Your task to perform on an android device: turn off smart reply in the gmail app Image 0: 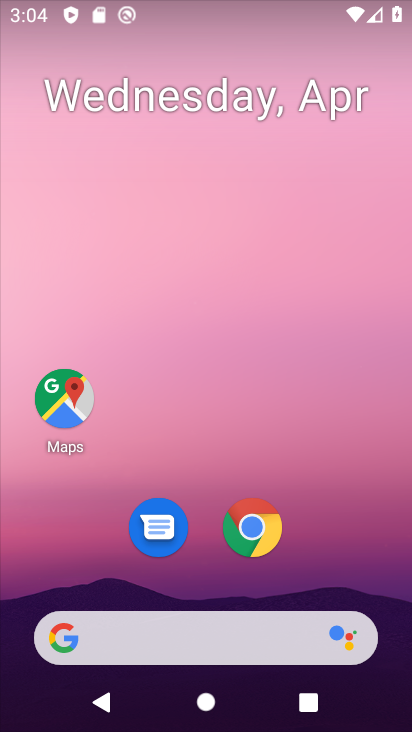
Step 0: drag from (192, 473) to (196, 8)
Your task to perform on an android device: turn off smart reply in the gmail app Image 1: 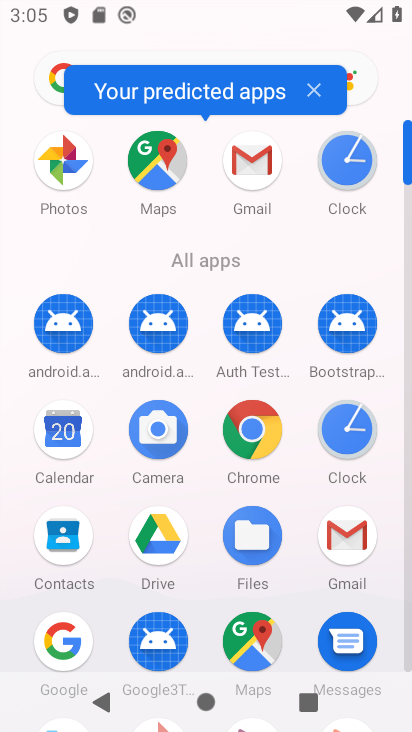
Step 1: click (266, 170)
Your task to perform on an android device: turn off smart reply in the gmail app Image 2: 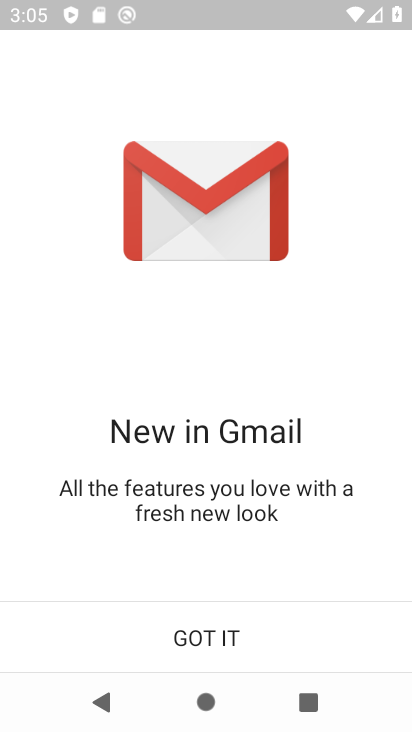
Step 2: click (207, 652)
Your task to perform on an android device: turn off smart reply in the gmail app Image 3: 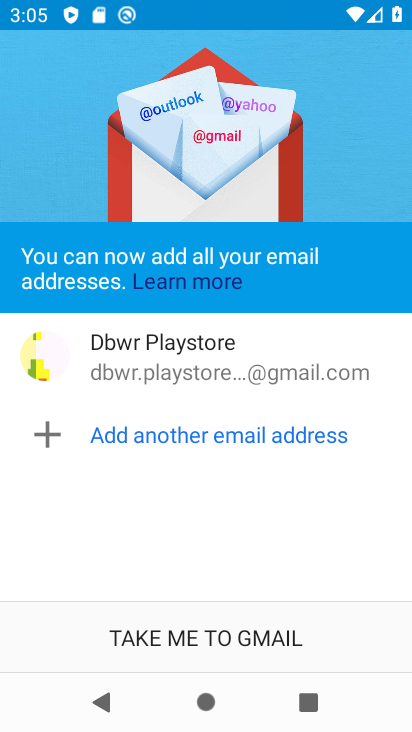
Step 3: click (207, 652)
Your task to perform on an android device: turn off smart reply in the gmail app Image 4: 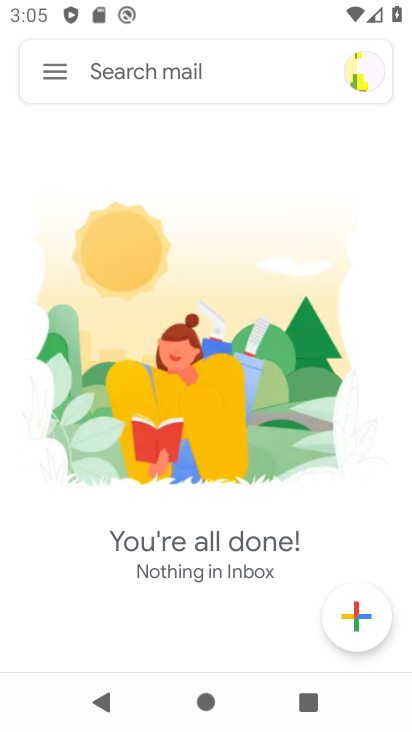
Step 4: click (54, 63)
Your task to perform on an android device: turn off smart reply in the gmail app Image 5: 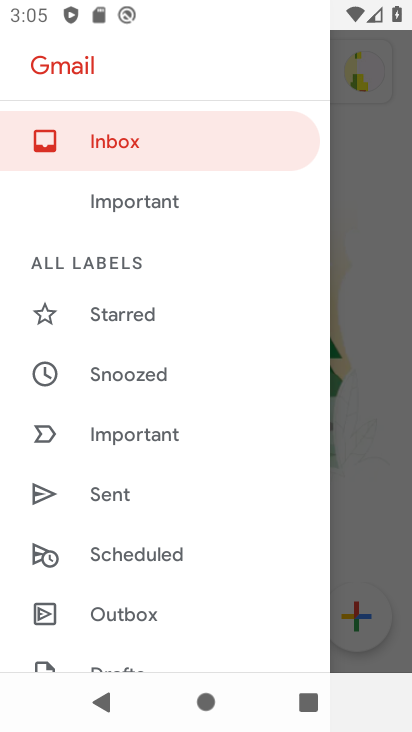
Step 5: drag from (170, 562) to (229, 101)
Your task to perform on an android device: turn off smart reply in the gmail app Image 6: 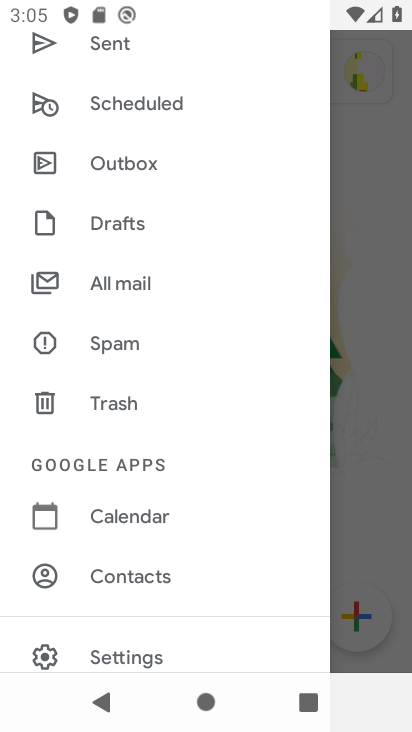
Step 6: click (147, 661)
Your task to perform on an android device: turn off smart reply in the gmail app Image 7: 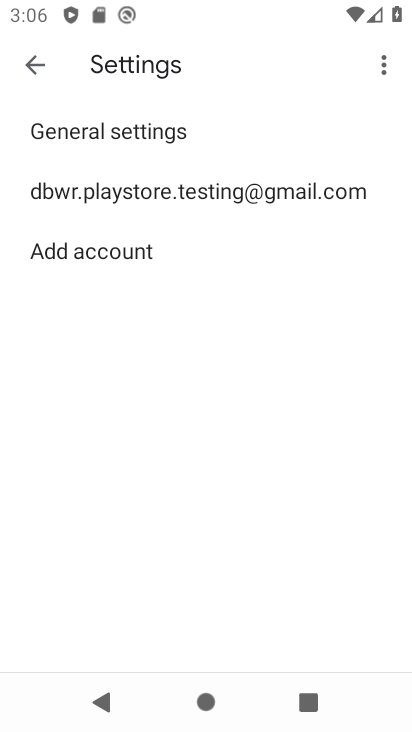
Step 7: click (265, 192)
Your task to perform on an android device: turn off smart reply in the gmail app Image 8: 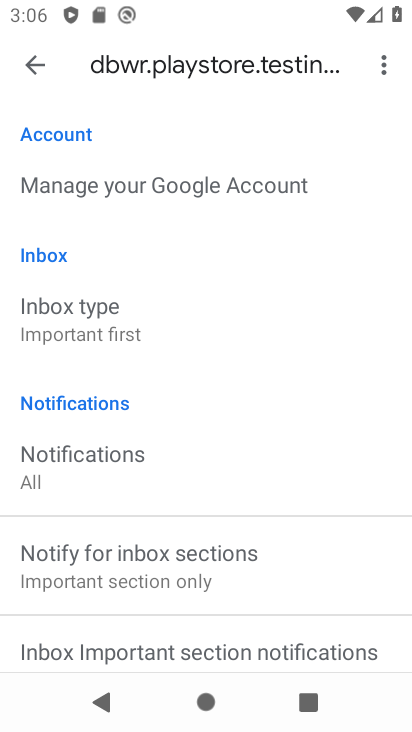
Step 8: drag from (159, 439) to (205, 76)
Your task to perform on an android device: turn off smart reply in the gmail app Image 9: 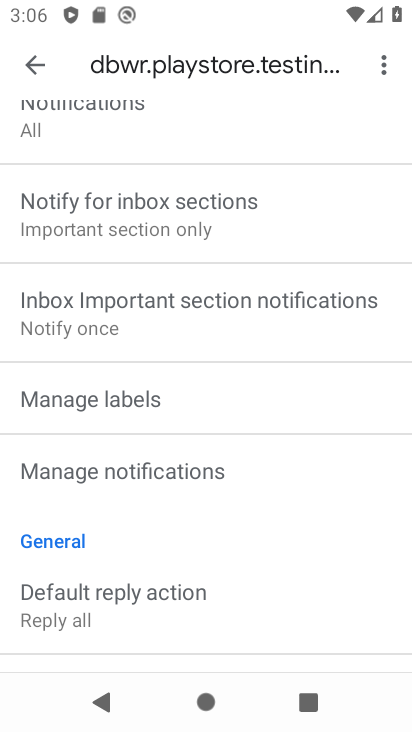
Step 9: drag from (150, 568) to (193, 259)
Your task to perform on an android device: turn off smart reply in the gmail app Image 10: 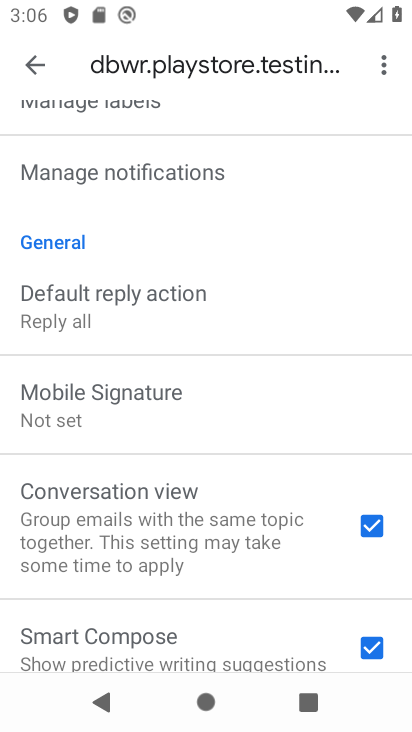
Step 10: drag from (195, 575) to (214, 326)
Your task to perform on an android device: turn off smart reply in the gmail app Image 11: 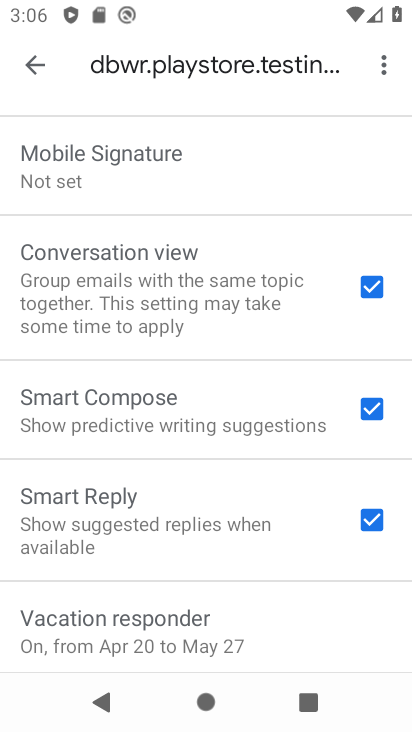
Step 11: click (363, 516)
Your task to perform on an android device: turn off smart reply in the gmail app Image 12: 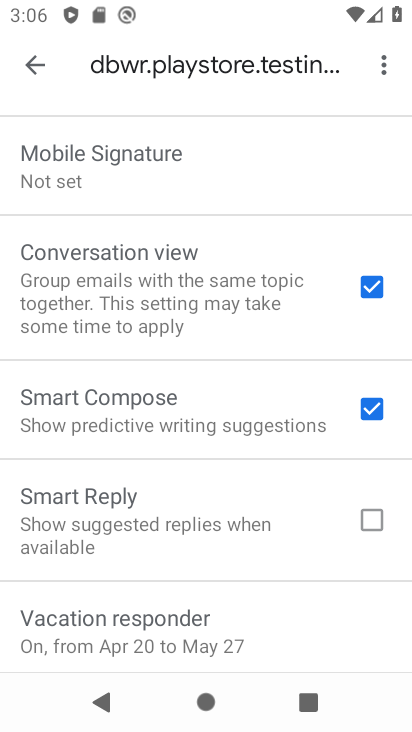
Step 12: task complete